Your task to perform on an android device: Open the Play Movies app and select the watchlist tab. Image 0: 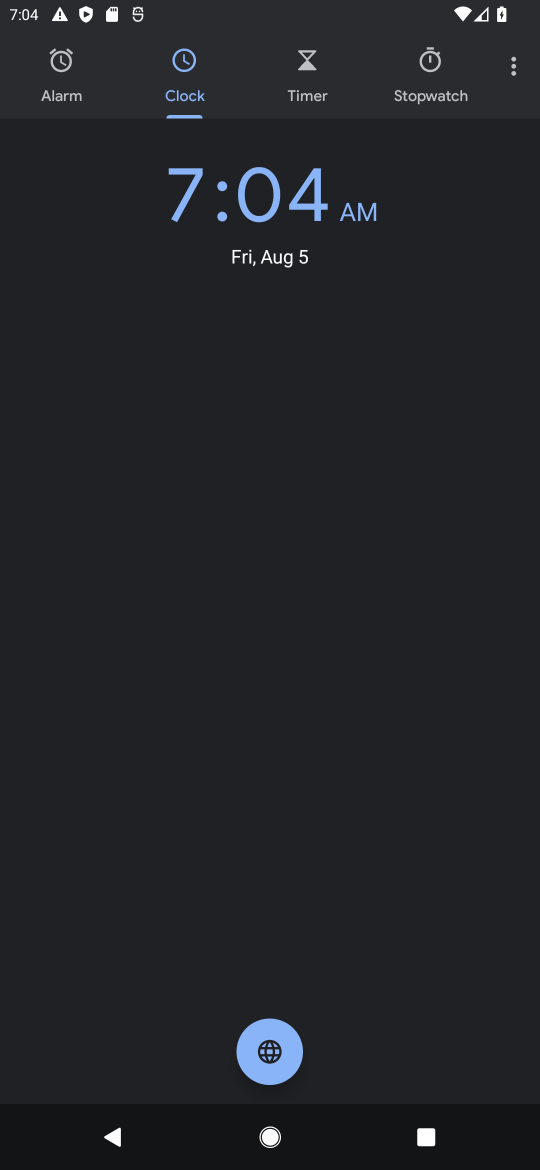
Step 0: press home button
Your task to perform on an android device: Open the Play Movies app and select the watchlist tab. Image 1: 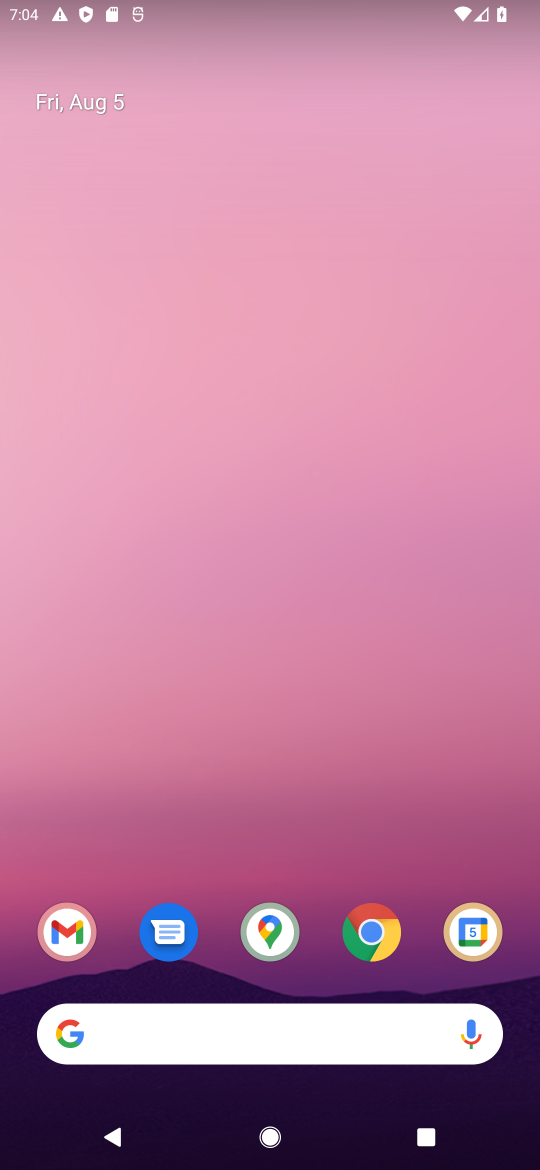
Step 1: drag from (244, 1032) to (367, 216)
Your task to perform on an android device: Open the Play Movies app and select the watchlist tab. Image 2: 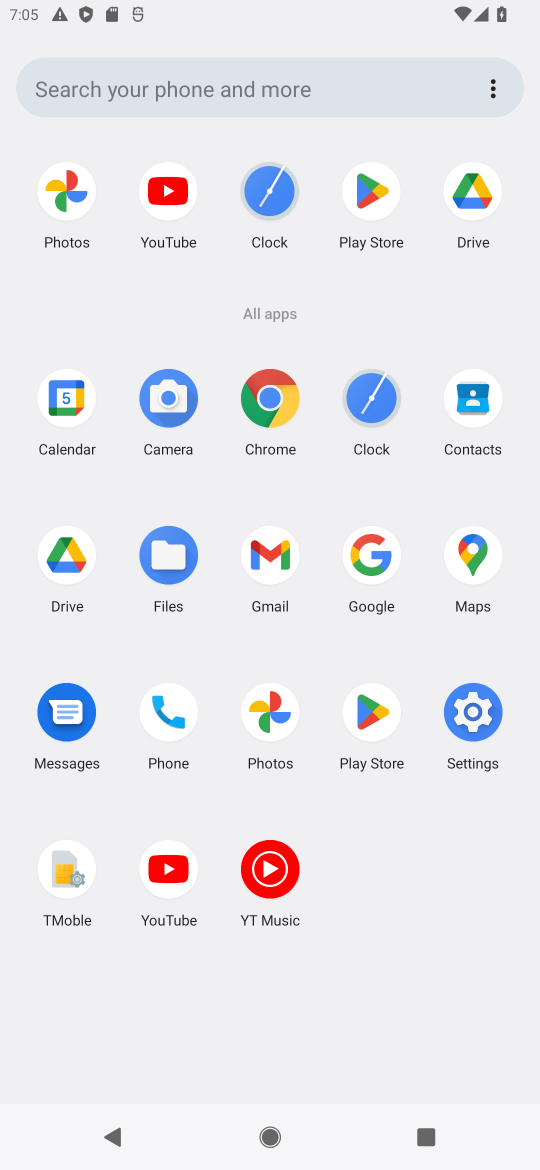
Step 2: click (271, 875)
Your task to perform on an android device: Open the Play Movies app and select the watchlist tab. Image 3: 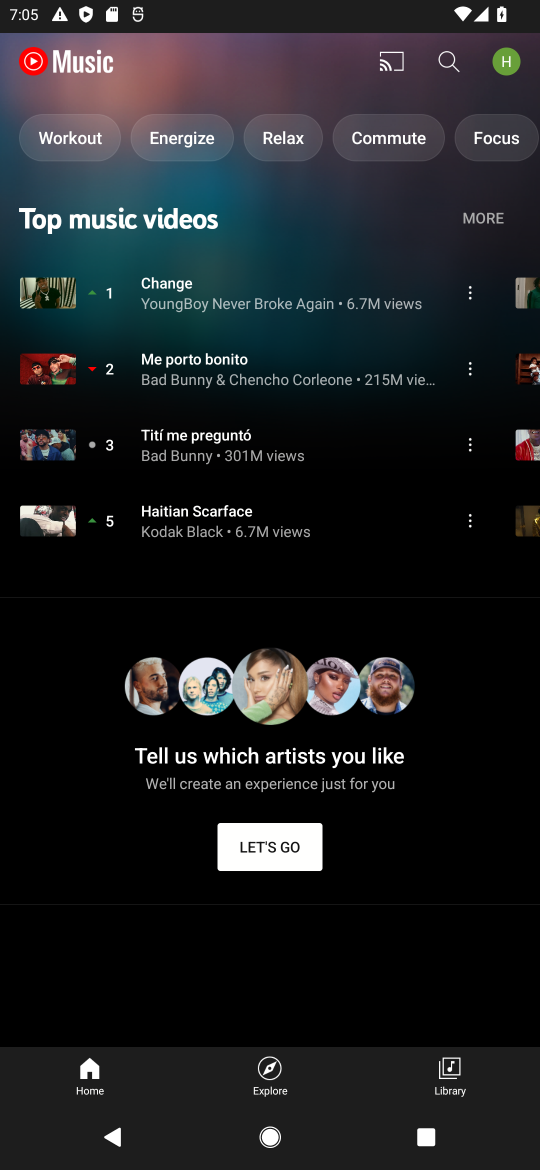
Step 3: task complete